Your task to perform on an android device: Go to CNN.com Image 0: 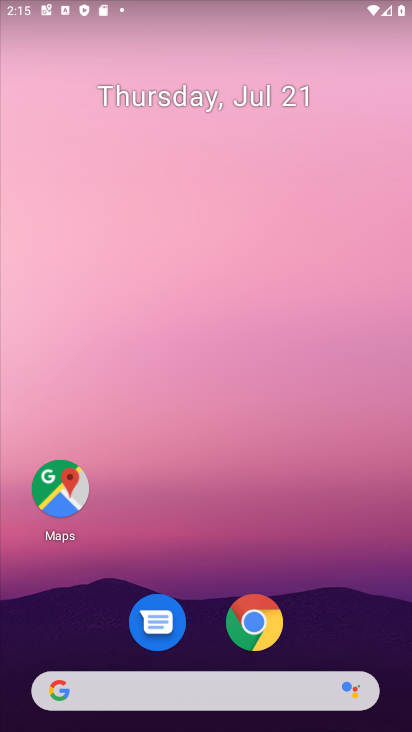
Step 0: press home button
Your task to perform on an android device: Go to CNN.com Image 1: 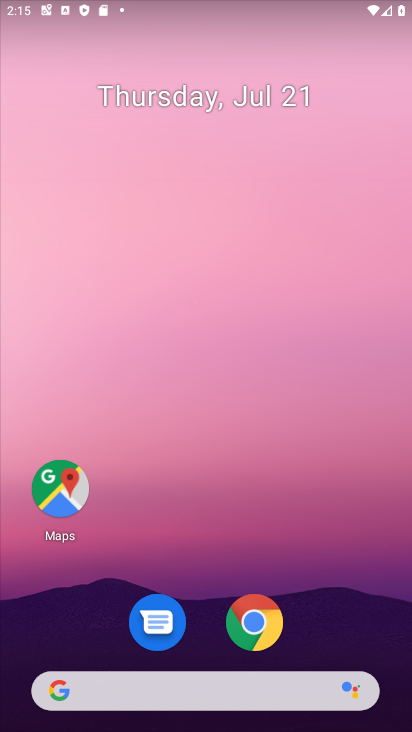
Step 1: click (256, 648)
Your task to perform on an android device: Go to CNN.com Image 2: 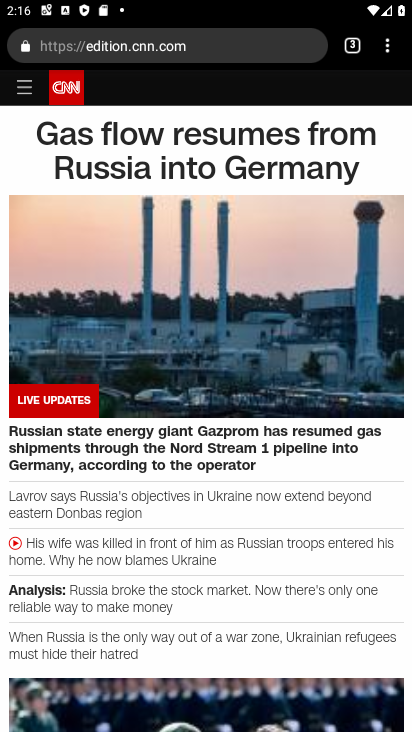
Step 2: task complete